Your task to perform on an android device: empty trash in the gmail app Image 0: 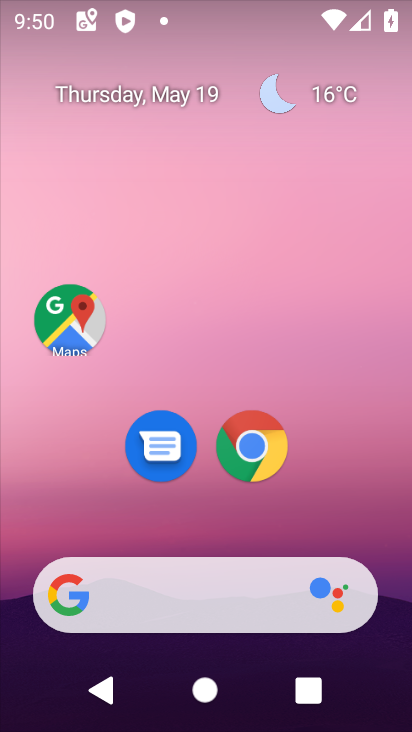
Step 0: drag from (199, 397) to (250, 33)
Your task to perform on an android device: empty trash in the gmail app Image 1: 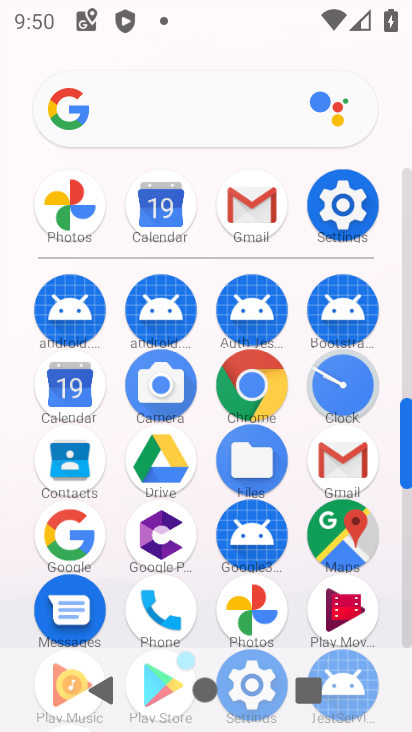
Step 1: click (343, 468)
Your task to perform on an android device: empty trash in the gmail app Image 2: 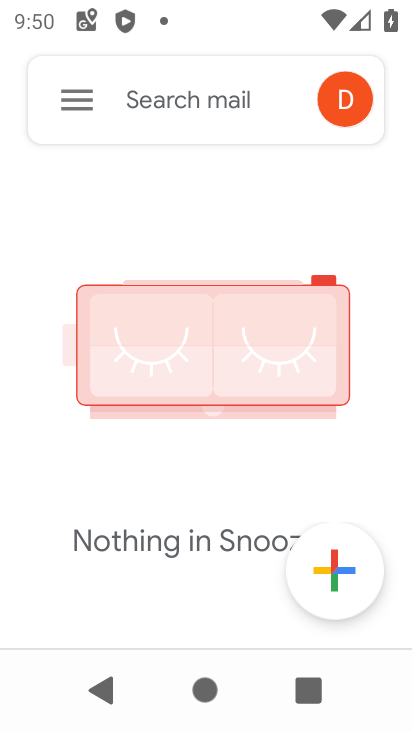
Step 2: click (57, 95)
Your task to perform on an android device: empty trash in the gmail app Image 3: 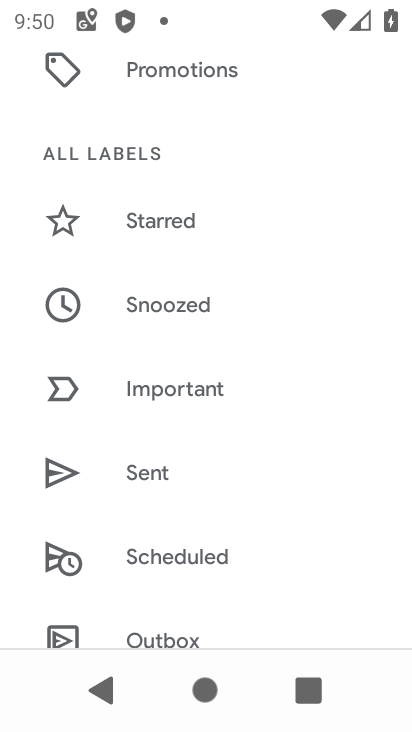
Step 3: drag from (163, 563) to (184, 245)
Your task to perform on an android device: empty trash in the gmail app Image 4: 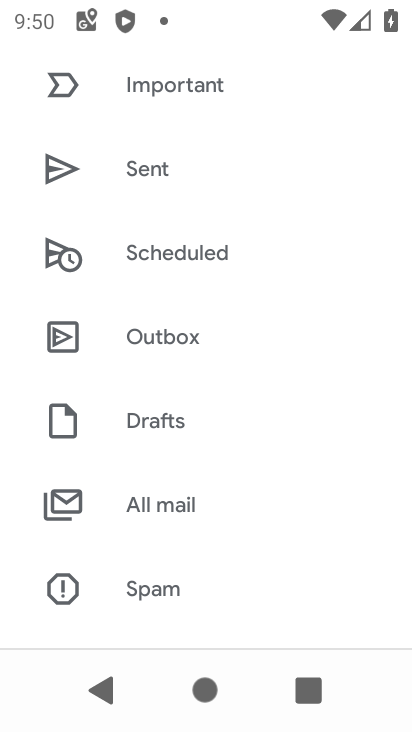
Step 4: drag from (141, 544) to (196, 208)
Your task to perform on an android device: empty trash in the gmail app Image 5: 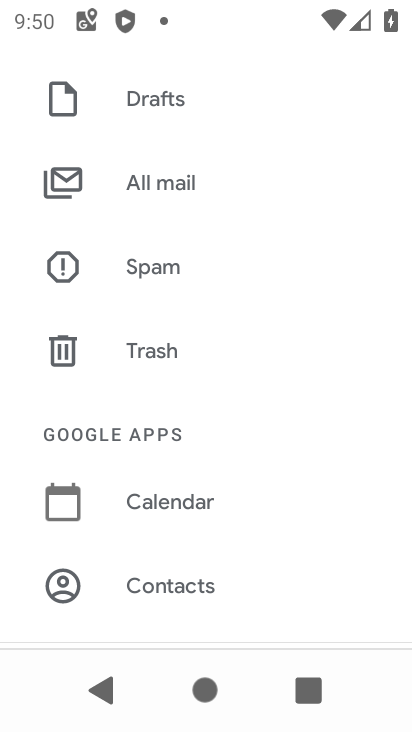
Step 5: click (139, 351)
Your task to perform on an android device: empty trash in the gmail app Image 6: 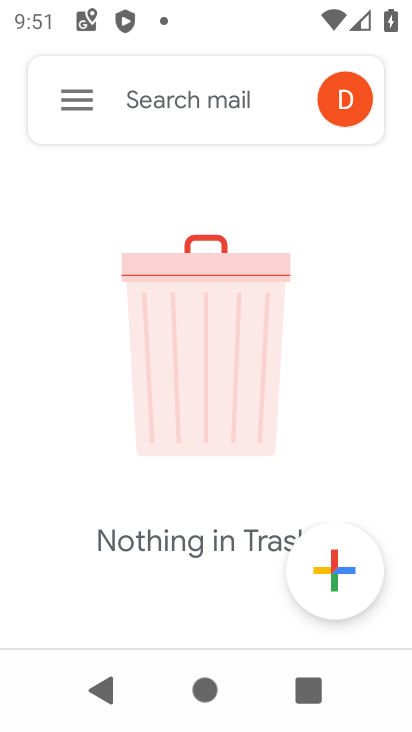
Step 6: task complete